Your task to perform on an android device: What's on my calendar today? Image 0: 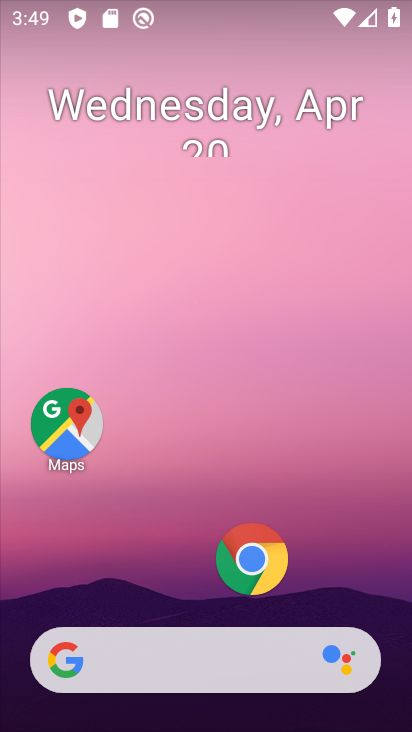
Step 0: drag from (163, 618) to (249, 126)
Your task to perform on an android device: What's on my calendar today? Image 1: 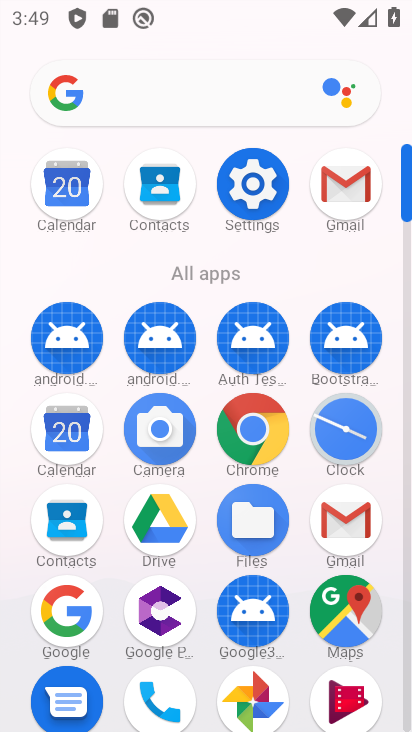
Step 1: click (73, 433)
Your task to perform on an android device: What's on my calendar today? Image 2: 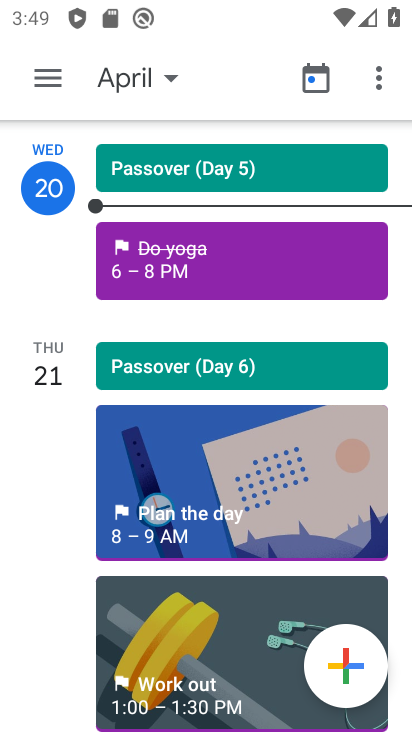
Step 2: click (171, 77)
Your task to perform on an android device: What's on my calendar today? Image 3: 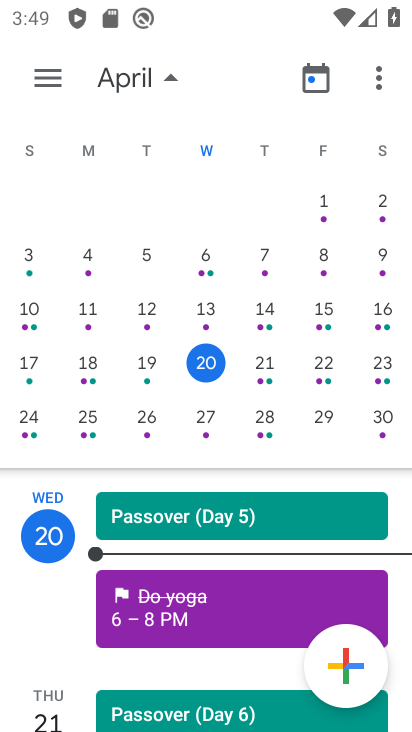
Step 3: click (208, 353)
Your task to perform on an android device: What's on my calendar today? Image 4: 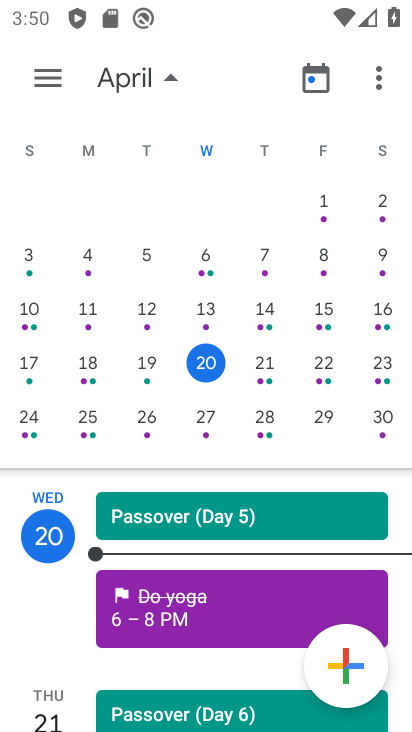
Step 4: task complete